Your task to perform on an android device: toggle show notifications on the lock screen Image 0: 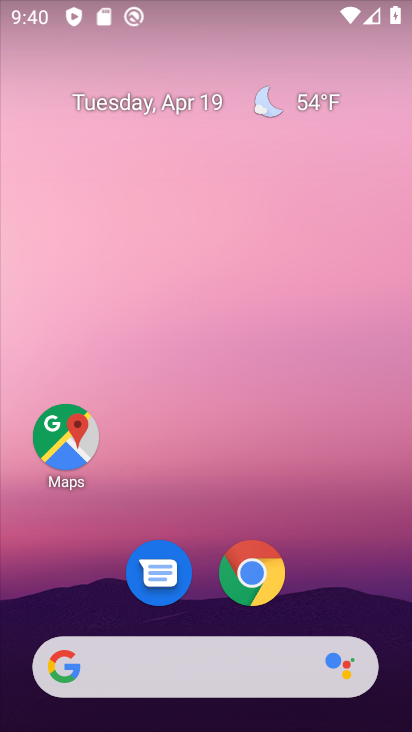
Step 0: drag from (225, 631) to (257, 228)
Your task to perform on an android device: toggle show notifications on the lock screen Image 1: 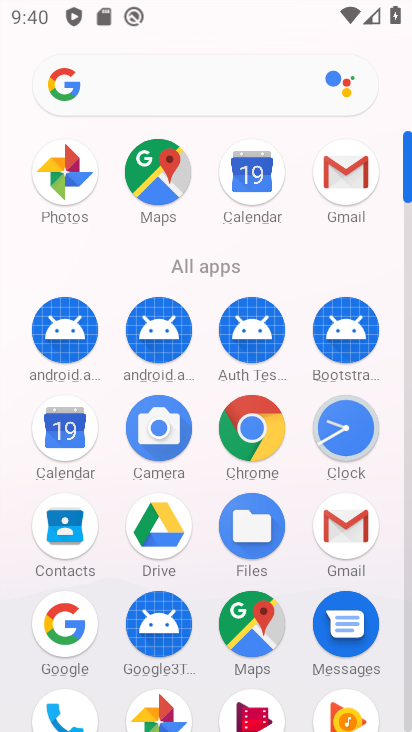
Step 1: drag from (197, 604) to (255, 158)
Your task to perform on an android device: toggle show notifications on the lock screen Image 2: 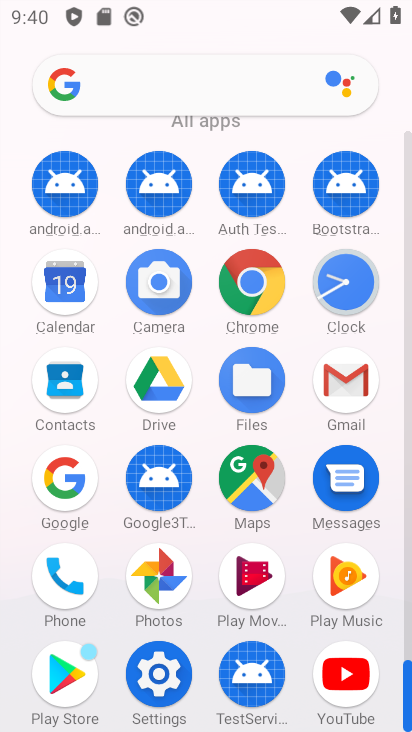
Step 2: click (157, 675)
Your task to perform on an android device: toggle show notifications on the lock screen Image 3: 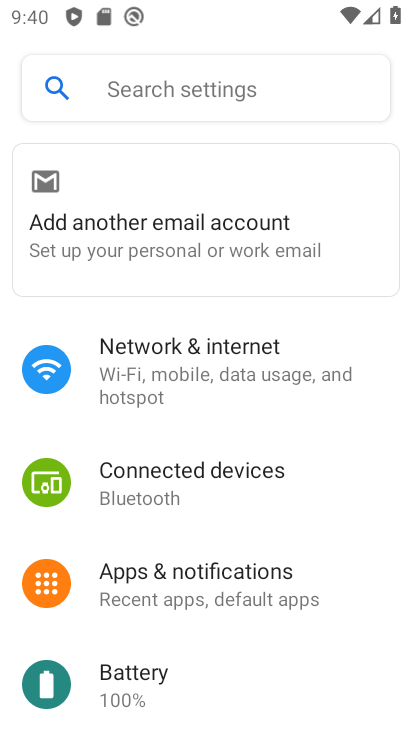
Step 3: drag from (193, 694) to (247, 301)
Your task to perform on an android device: toggle show notifications on the lock screen Image 4: 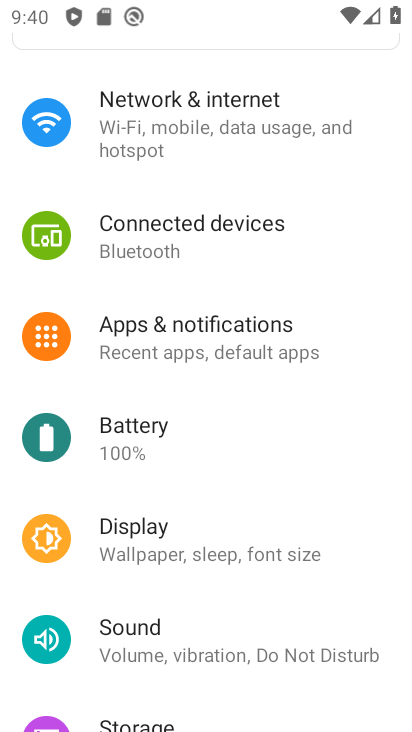
Step 4: drag from (254, 707) to (277, 388)
Your task to perform on an android device: toggle show notifications on the lock screen Image 5: 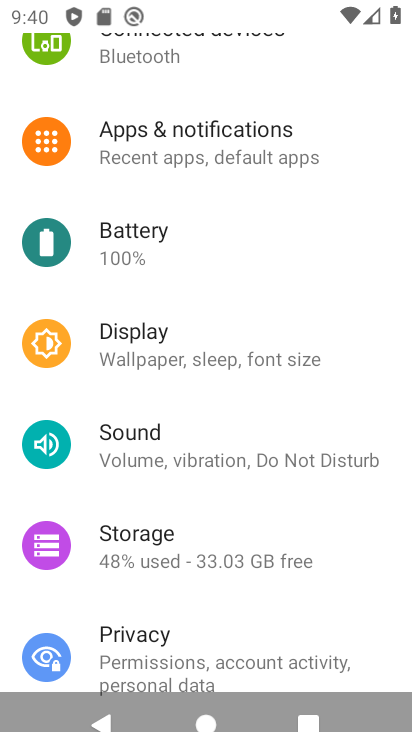
Step 5: drag from (239, 626) to (250, 265)
Your task to perform on an android device: toggle show notifications on the lock screen Image 6: 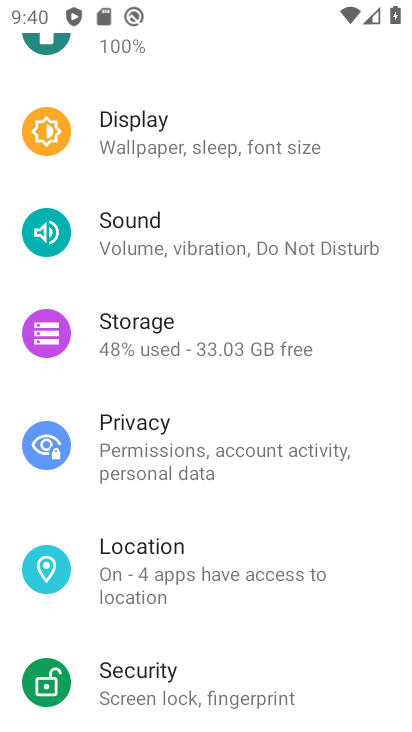
Step 6: click (162, 454)
Your task to perform on an android device: toggle show notifications on the lock screen Image 7: 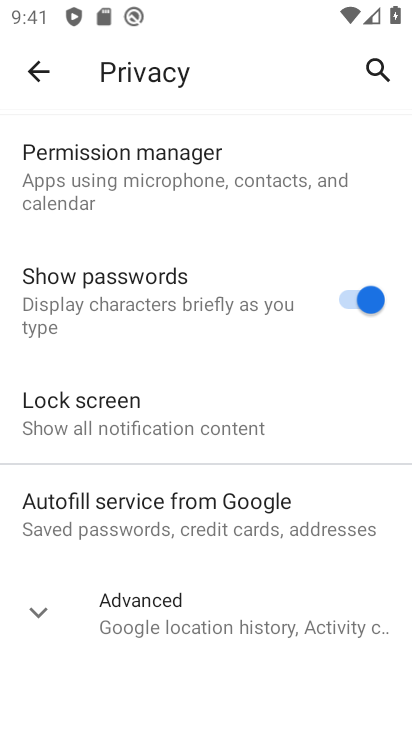
Step 7: click (153, 429)
Your task to perform on an android device: toggle show notifications on the lock screen Image 8: 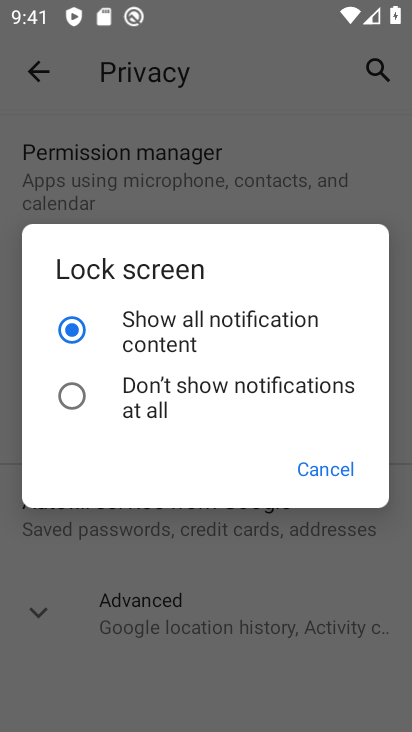
Step 8: click (71, 396)
Your task to perform on an android device: toggle show notifications on the lock screen Image 9: 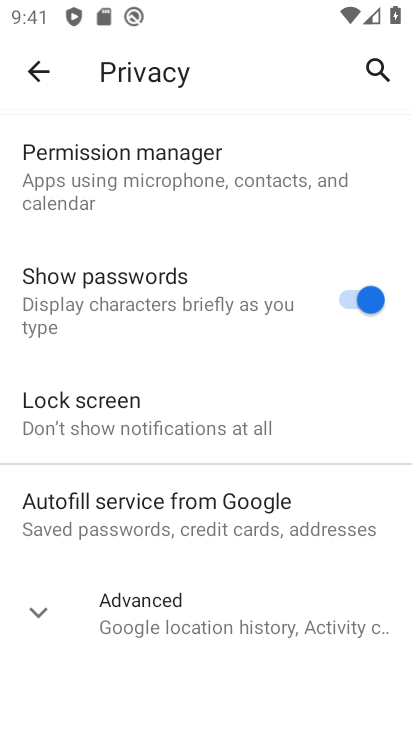
Step 9: task complete